Your task to perform on an android device: turn on data saver in the chrome app Image 0: 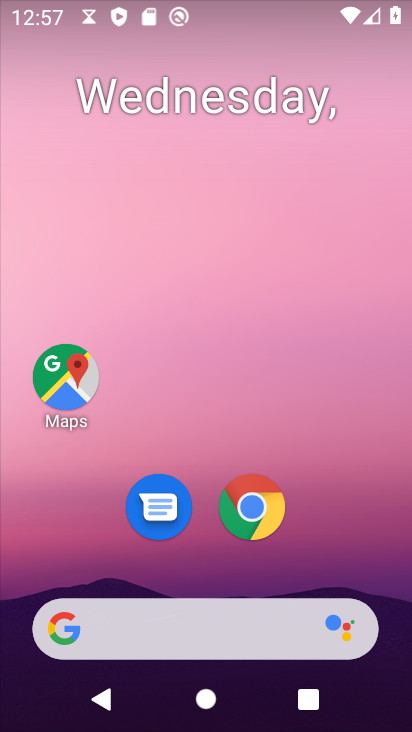
Step 0: drag from (165, 609) to (289, 182)
Your task to perform on an android device: turn on data saver in the chrome app Image 1: 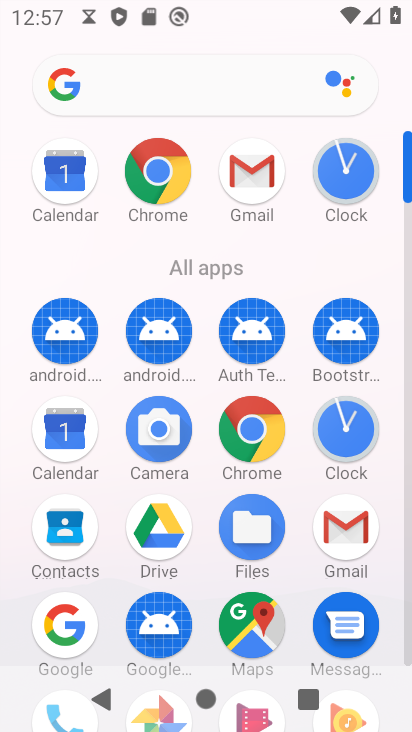
Step 1: click (257, 438)
Your task to perform on an android device: turn on data saver in the chrome app Image 2: 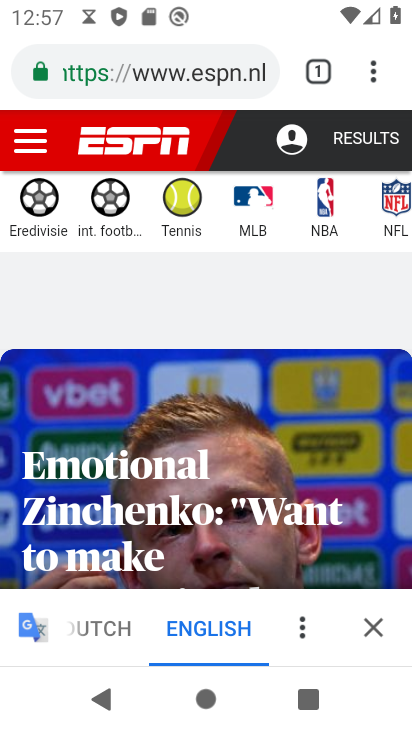
Step 2: drag from (374, 77) to (196, 502)
Your task to perform on an android device: turn on data saver in the chrome app Image 3: 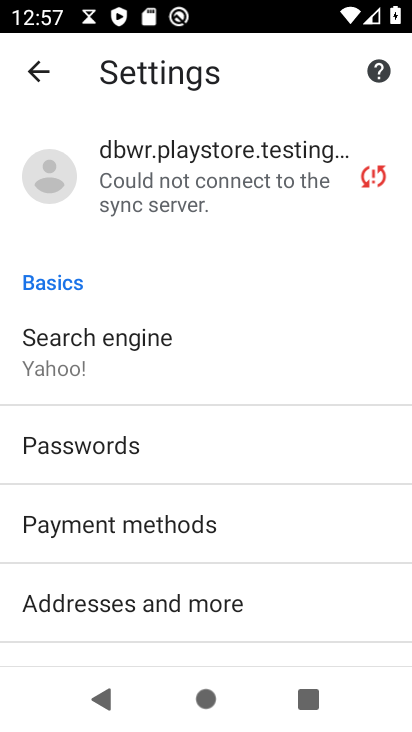
Step 3: drag from (258, 610) to (316, 146)
Your task to perform on an android device: turn on data saver in the chrome app Image 4: 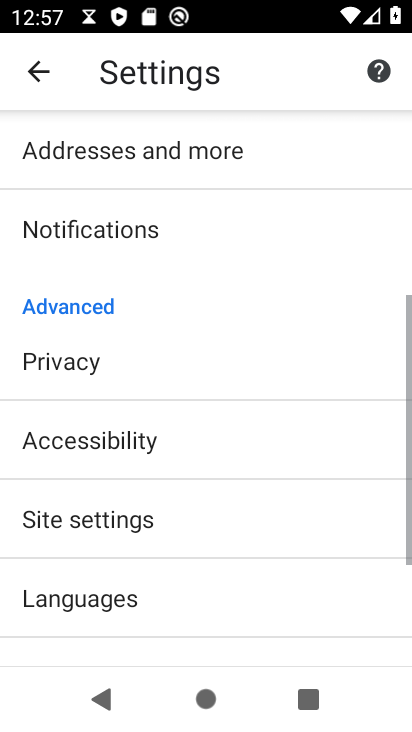
Step 4: drag from (163, 601) to (237, 229)
Your task to perform on an android device: turn on data saver in the chrome app Image 5: 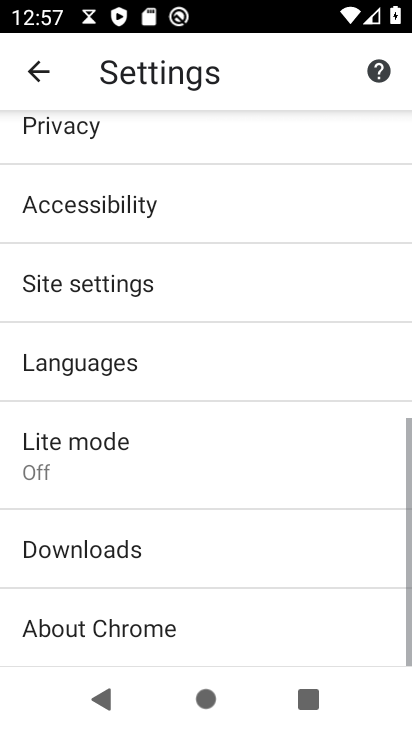
Step 5: click (120, 447)
Your task to perform on an android device: turn on data saver in the chrome app Image 6: 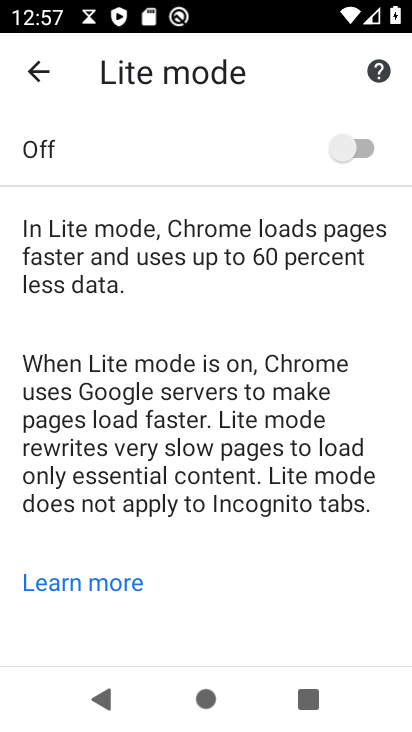
Step 6: click (360, 144)
Your task to perform on an android device: turn on data saver in the chrome app Image 7: 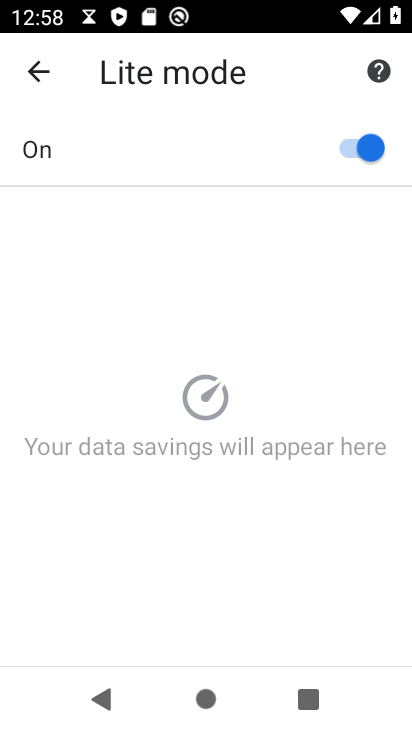
Step 7: task complete